Your task to perform on an android device: Add "rayovac triple a" to the cart on amazon.com, then select checkout. Image 0: 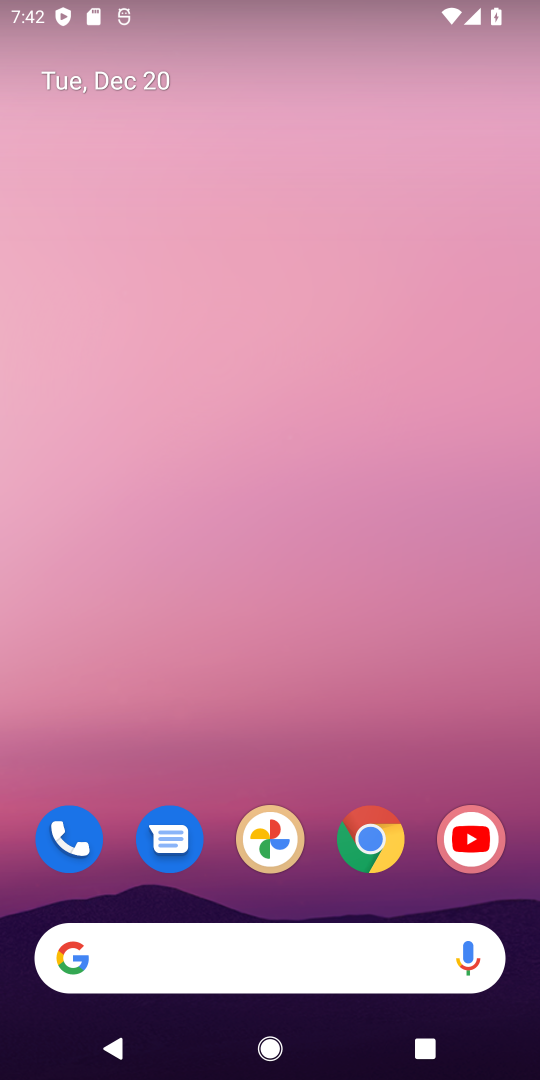
Step 0: click (181, 963)
Your task to perform on an android device: Add "rayovac triple a" to the cart on amazon.com, then select checkout. Image 1: 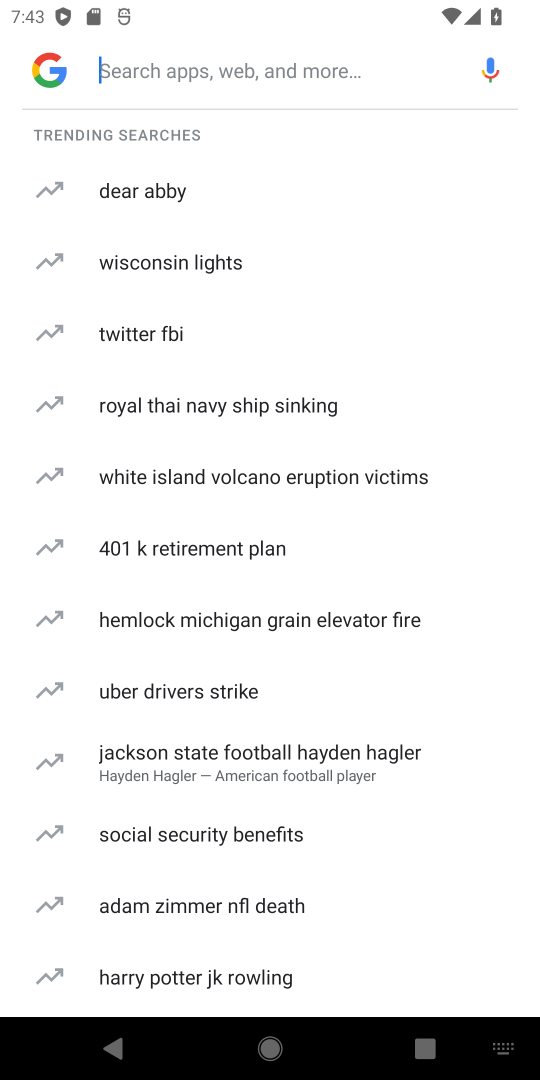
Step 1: type " amazon.com"
Your task to perform on an android device: Add "rayovac triple a" to the cart on amazon.com, then select checkout. Image 2: 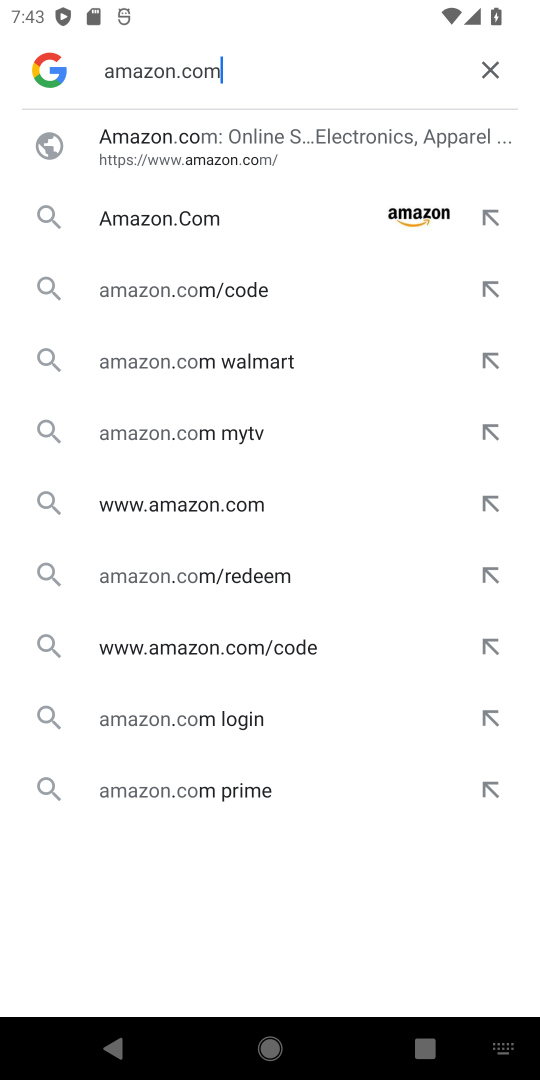
Step 2: type ""
Your task to perform on an android device: Add "rayovac triple a" to the cart on amazon.com, then select checkout. Image 3: 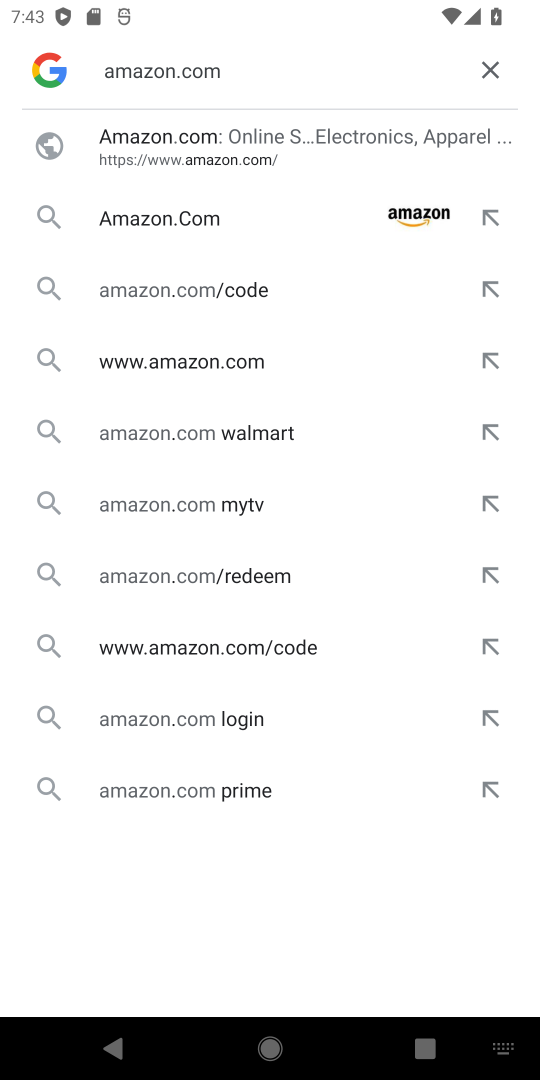
Step 3: click (168, 217)
Your task to perform on an android device: Add "rayovac triple a" to the cart on amazon.com, then select checkout. Image 4: 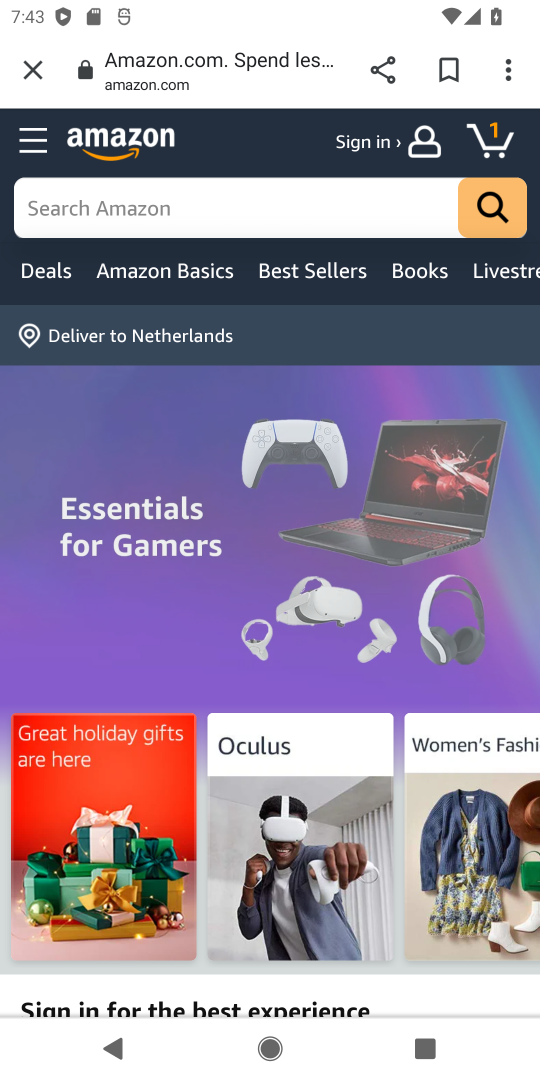
Step 4: click (309, 186)
Your task to perform on an android device: Add "rayovac triple a" to the cart on amazon.com, then select checkout. Image 5: 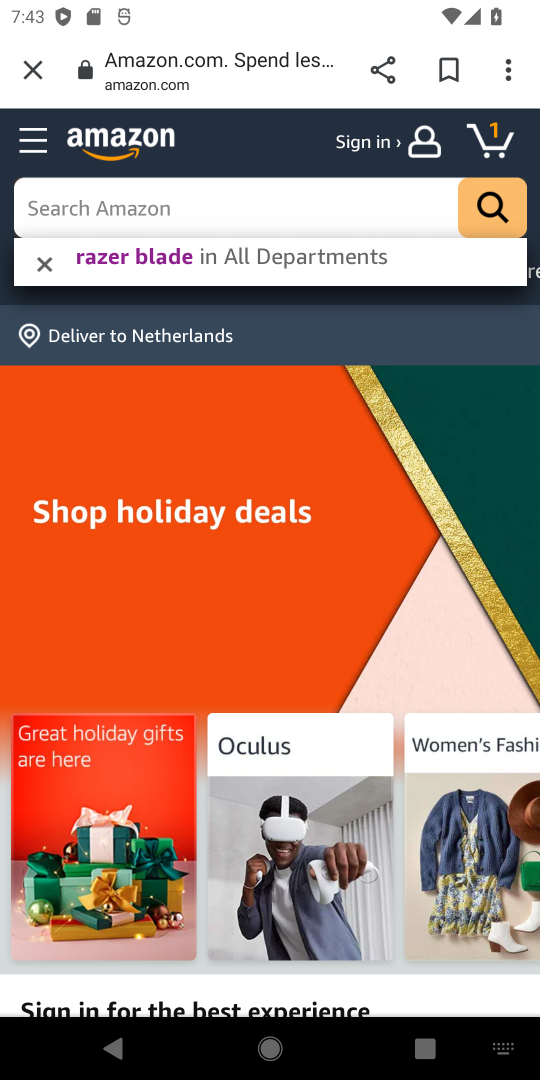
Step 5: type "rayovac triple a"
Your task to perform on an android device: Add "rayovac triple a" to the cart on amazon.com, then select checkout. Image 6: 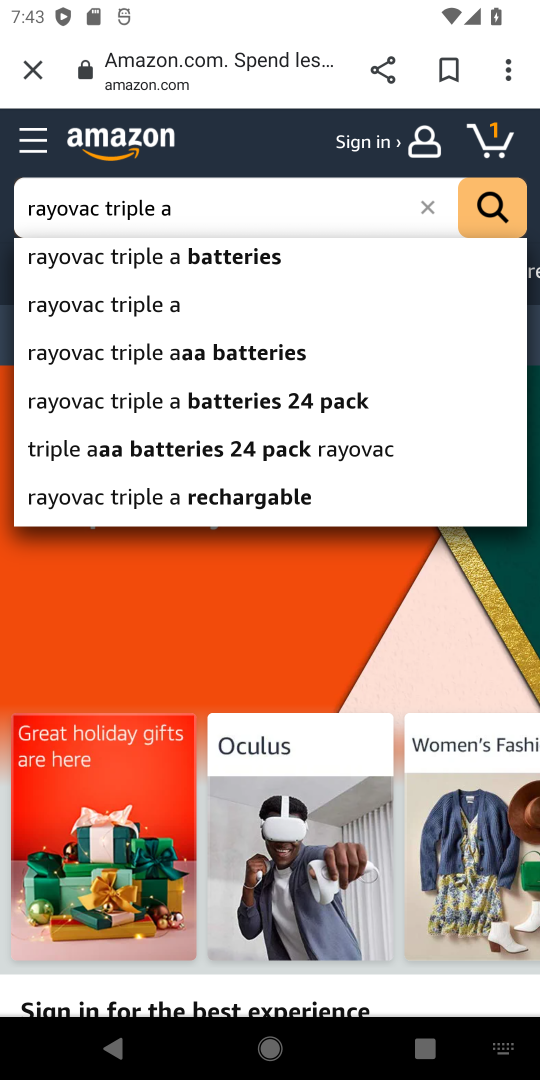
Step 6: click (155, 308)
Your task to perform on an android device: Add "rayovac triple a" to the cart on amazon.com, then select checkout. Image 7: 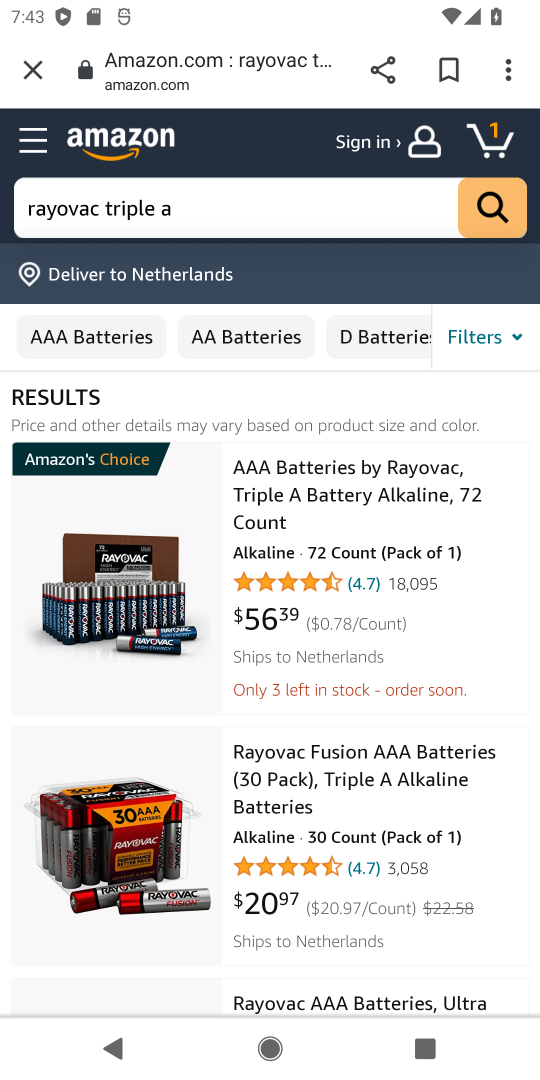
Step 7: click (335, 482)
Your task to perform on an android device: Add "rayovac triple a" to the cart on amazon.com, then select checkout. Image 8: 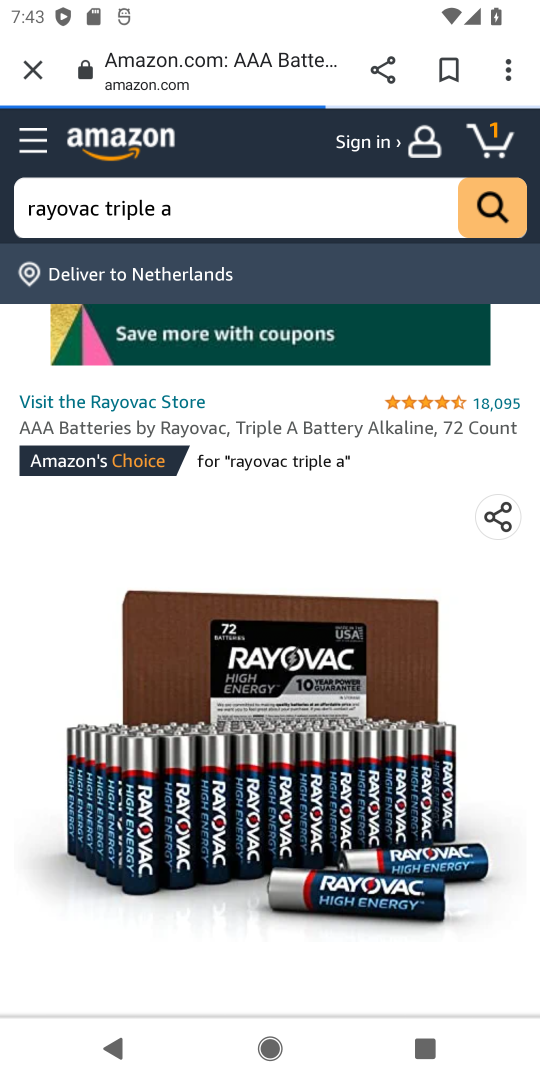
Step 8: drag from (287, 889) to (347, 309)
Your task to perform on an android device: Add "rayovac triple a" to the cart on amazon.com, then select checkout. Image 9: 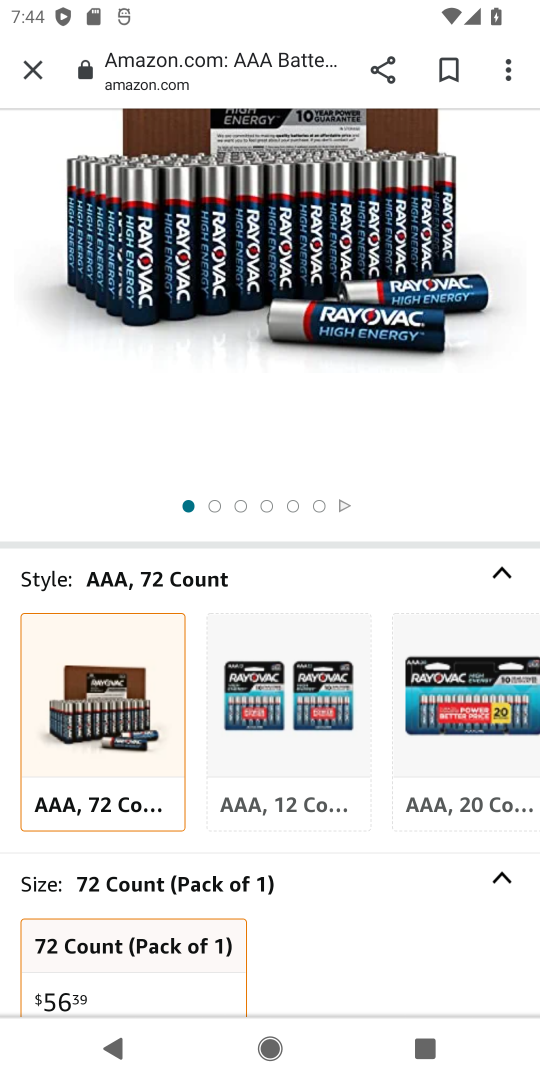
Step 9: drag from (259, 952) to (334, 405)
Your task to perform on an android device: Add "rayovac triple a" to the cart on amazon.com, then select checkout. Image 10: 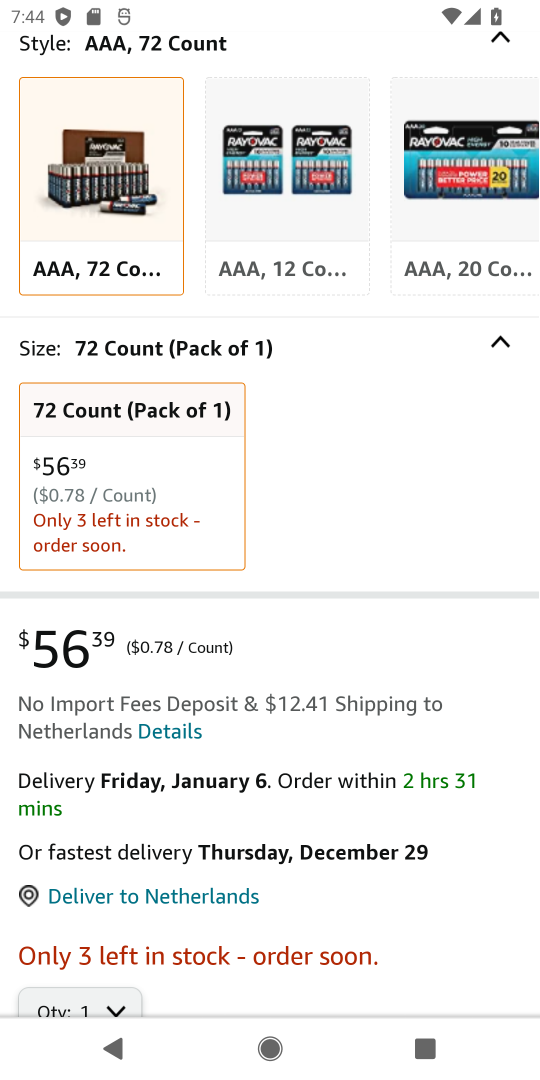
Step 10: drag from (323, 916) to (401, 76)
Your task to perform on an android device: Add "rayovac triple a" to the cart on amazon.com, then select checkout. Image 11: 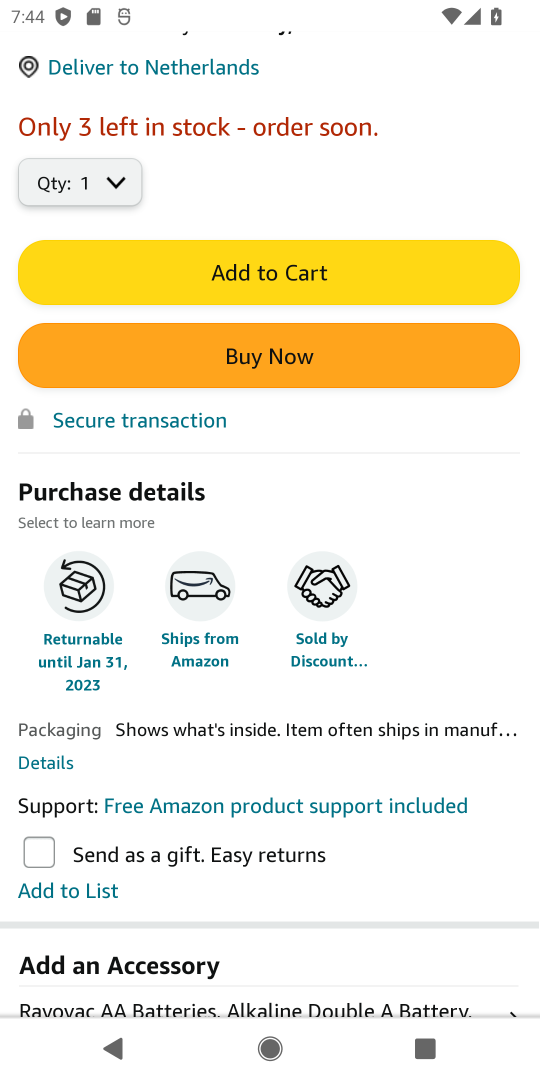
Step 11: click (287, 272)
Your task to perform on an android device: Add "rayovac triple a" to the cart on amazon.com, then select checkout. Image 12: 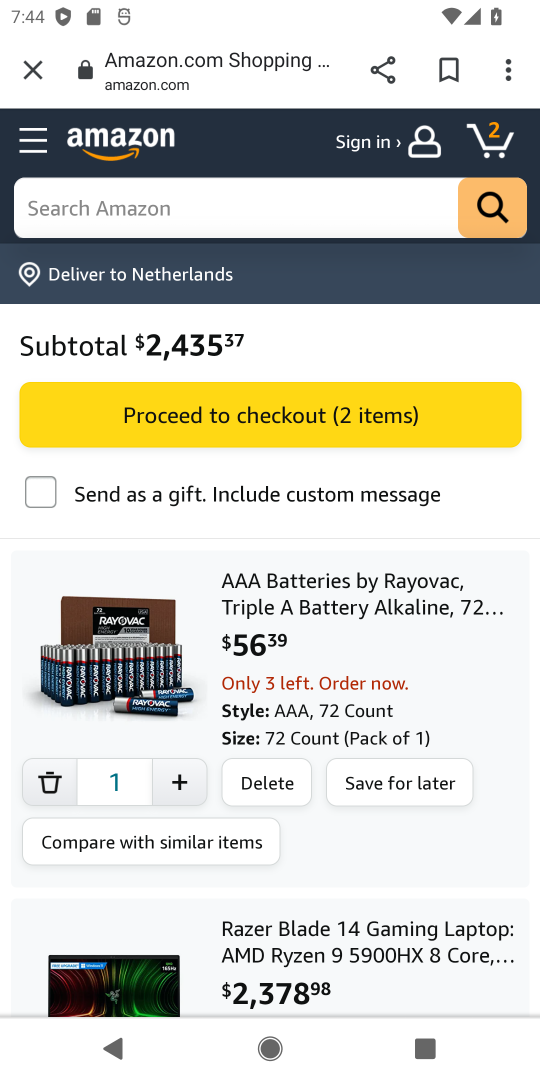
Step 12: click (485, 137)
Your task to perform on an android device: Add "rayovac triple a" to the cart on amazon.com, then select checkout. Image 13: 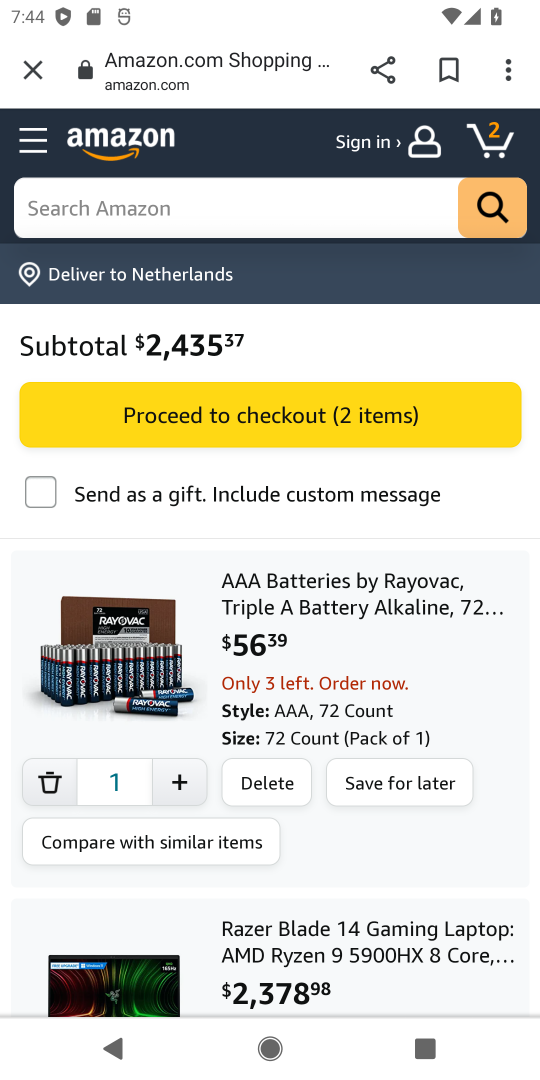
Step 13: click (247, 415)
Your task to perform on an android device: Add "rayovac triple a" to the cart on amazon.com, then select checkout. Image 14: 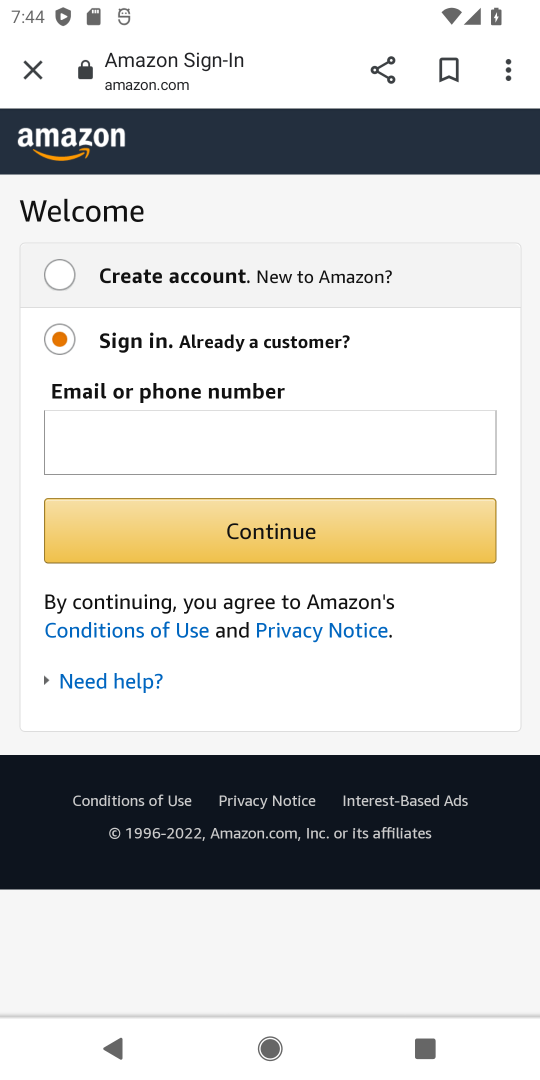
Step 14: task complete